Your task to perform on an android device: Do I have any events this weekend? Image 0: 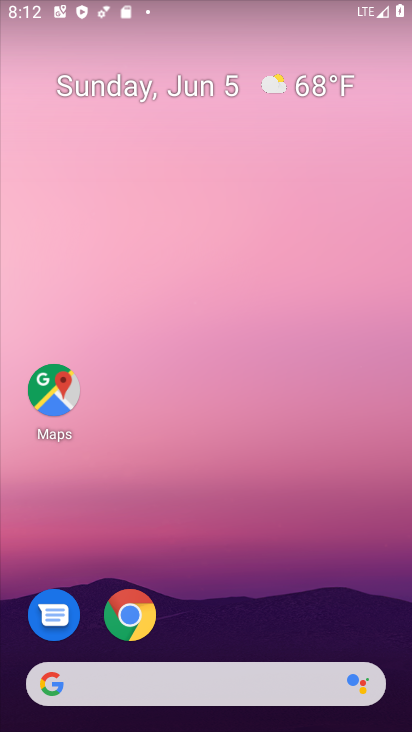
Step 0: drag from (143, 621) to (233, 257)
Your task to perform on an android device: Do I have any events this weekend? Image 1: 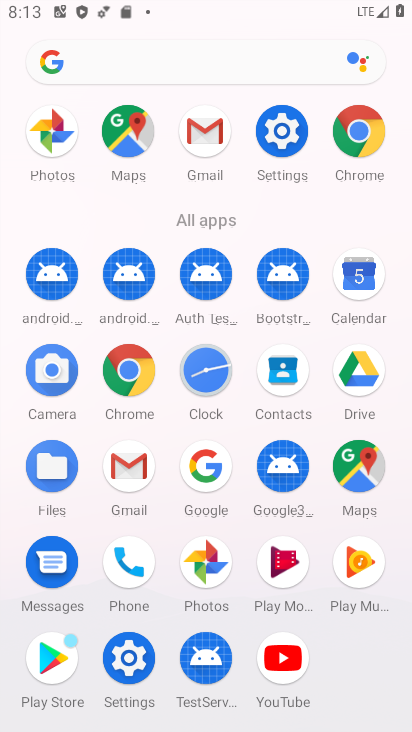
Step 1: click (364, 270)
Your task to perform on an android device: Do I have any events this weekend? Image 2: 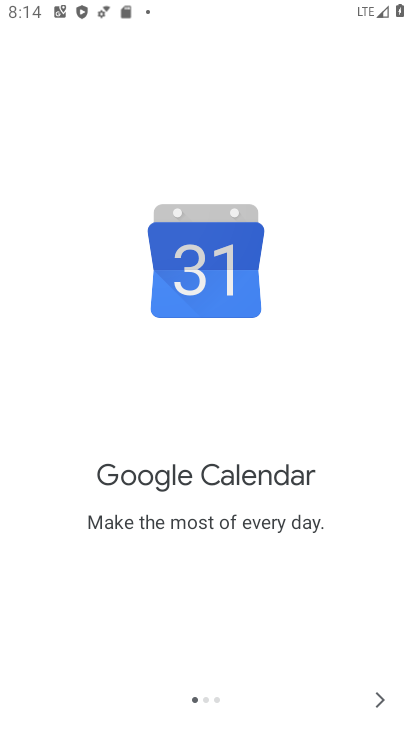
Step 2: click (376, 680)
Your task to perform on an android device: Do I have any events this weekend? Image 3: 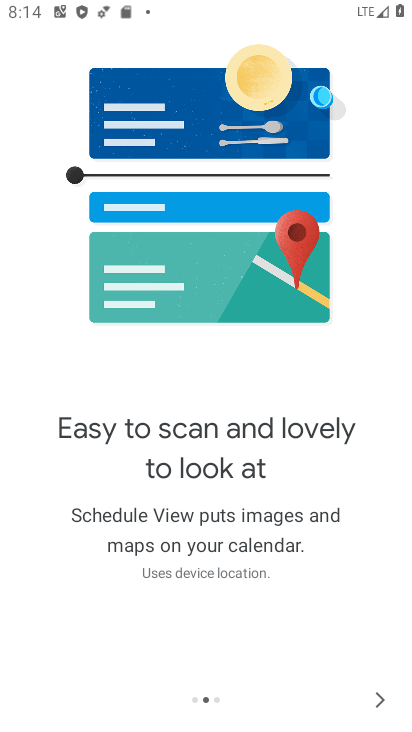
Step 3: click (375, 682)
Your task to perform on an android device: Do I have any events this weekend? Image 4: 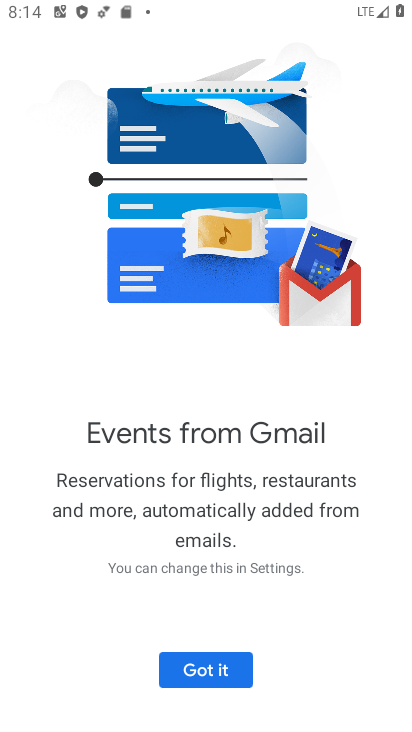
Step 4: click (372, 685)
Your task to perform on an android device: Do I have any events this weekend? Image 5: 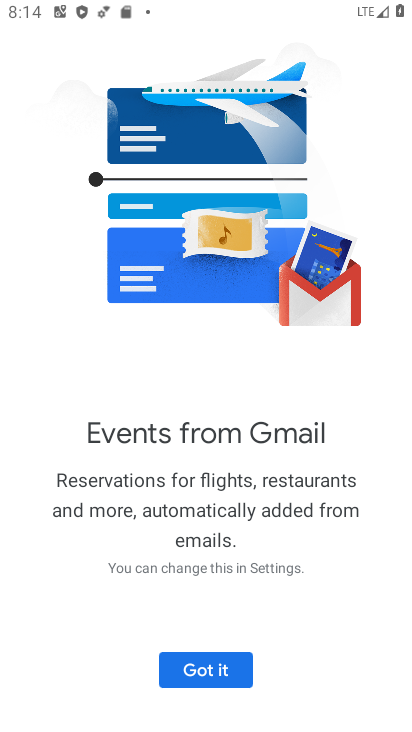
Step 5: click (199, 658)
Your task to perform on an android device: Do I have any events this weekend? Image 6: 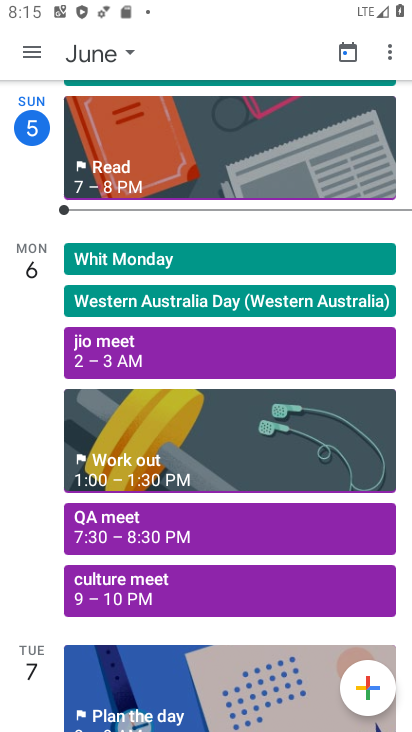
Step 6: click (25, 65)
Your task to perform on an android device: Do I have any events this weekend? Image 7: 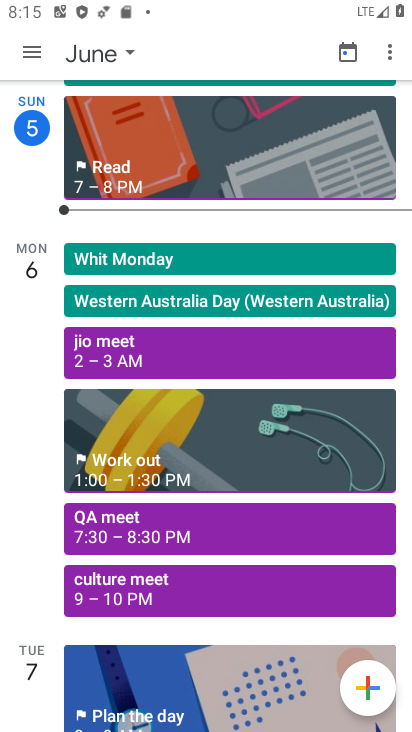
Step 7: drag from (24, 65) to (153, 147)
Your task to perform on an android device: Do I have any events this weekend? Image 8: 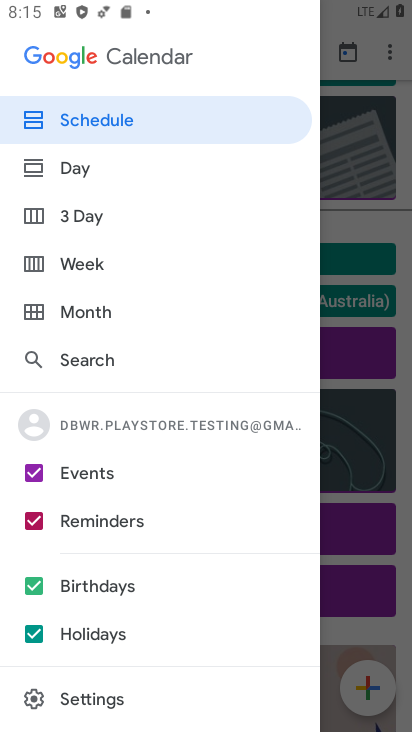
Step 8: click (67, 257)
Your task to perform on an android device: Do I have any events this weekend? Image 9: 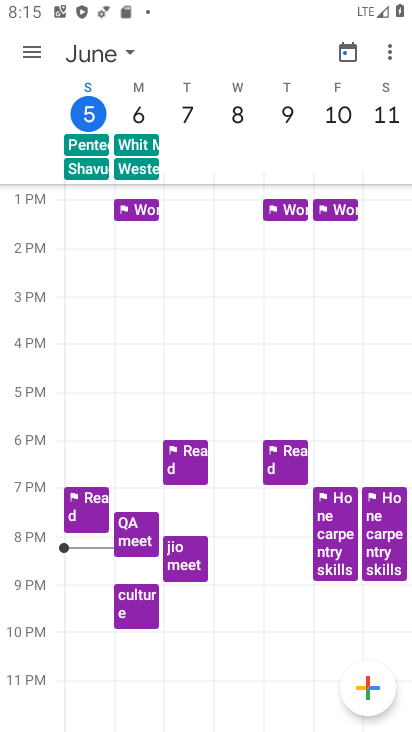
Step 9: task complete